Your task to perform on an android device: What's the weather today? Image 0: 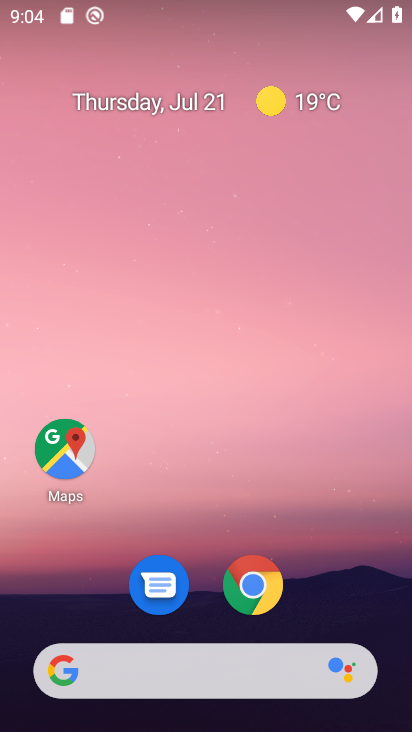
Step 0: drag from (331, 530) to (292, 29)
Your task to perform on an android device: What's the weather today? Image 1: 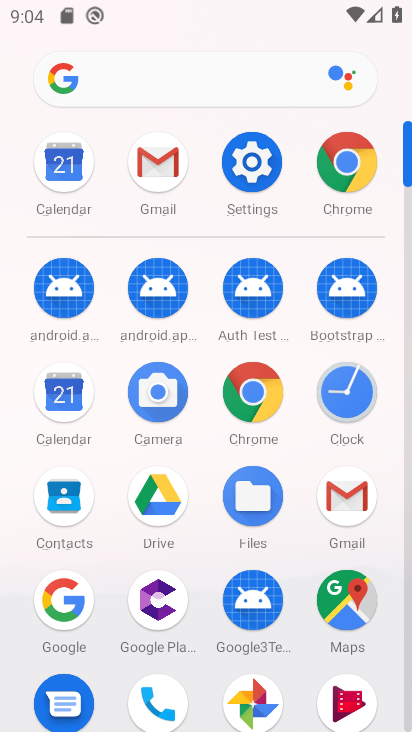
Step 1: click (67, 81)
Your task to perform on an android device: What's the weather today? Image 2: 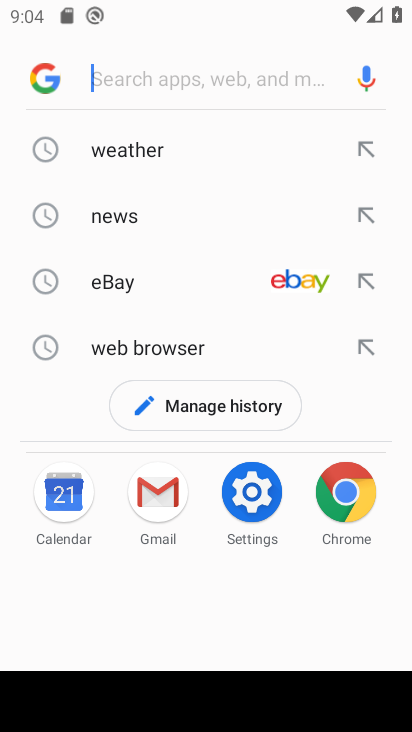
Step 2: click (113, 154)
Your task to perform on an android device: What's the weather today? Image 3: 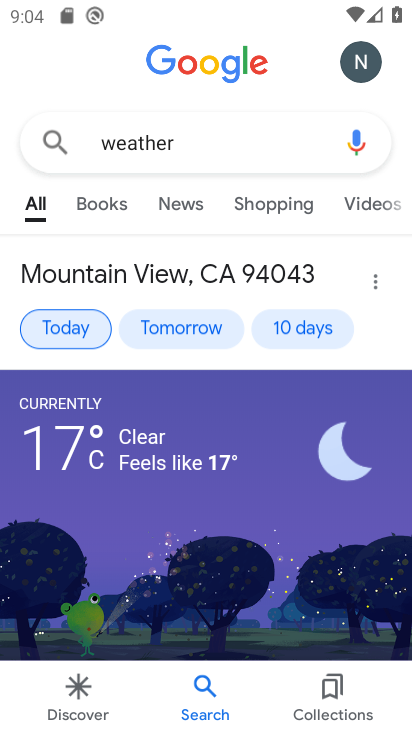
Step 3: click (69, 325)
Your task to perform on an android device: What's the weather today? Image 4: 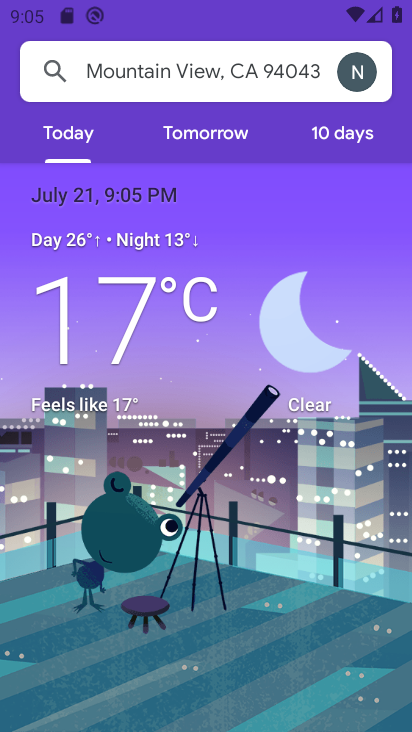
Step 4: task complete